Your task to perform on an android device: open app "WhatsApp Messenger" (install if not already installed) Image 0: 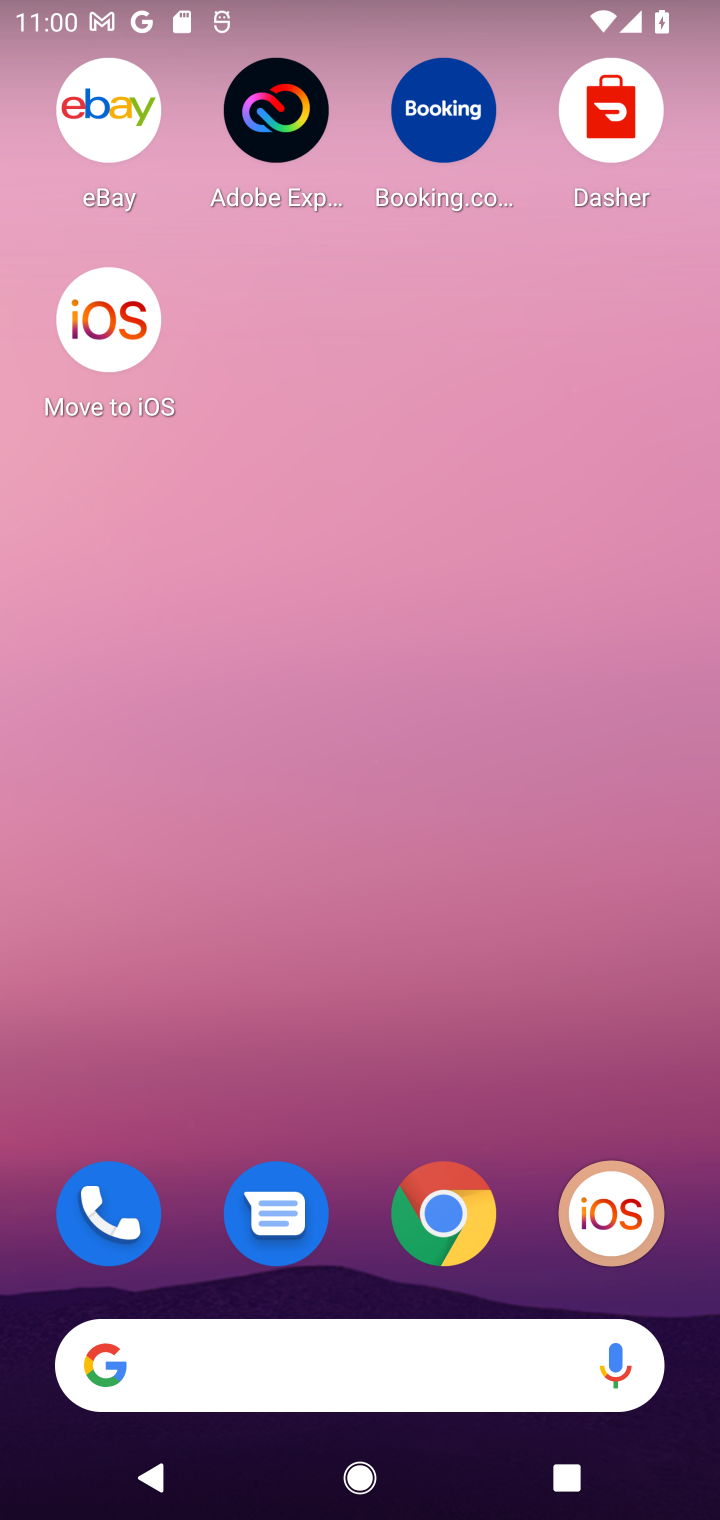
Step 0: press home button
Your task to perform on an android device: open app "WhatsApp Messenger" (install if not already installed) Image 1: 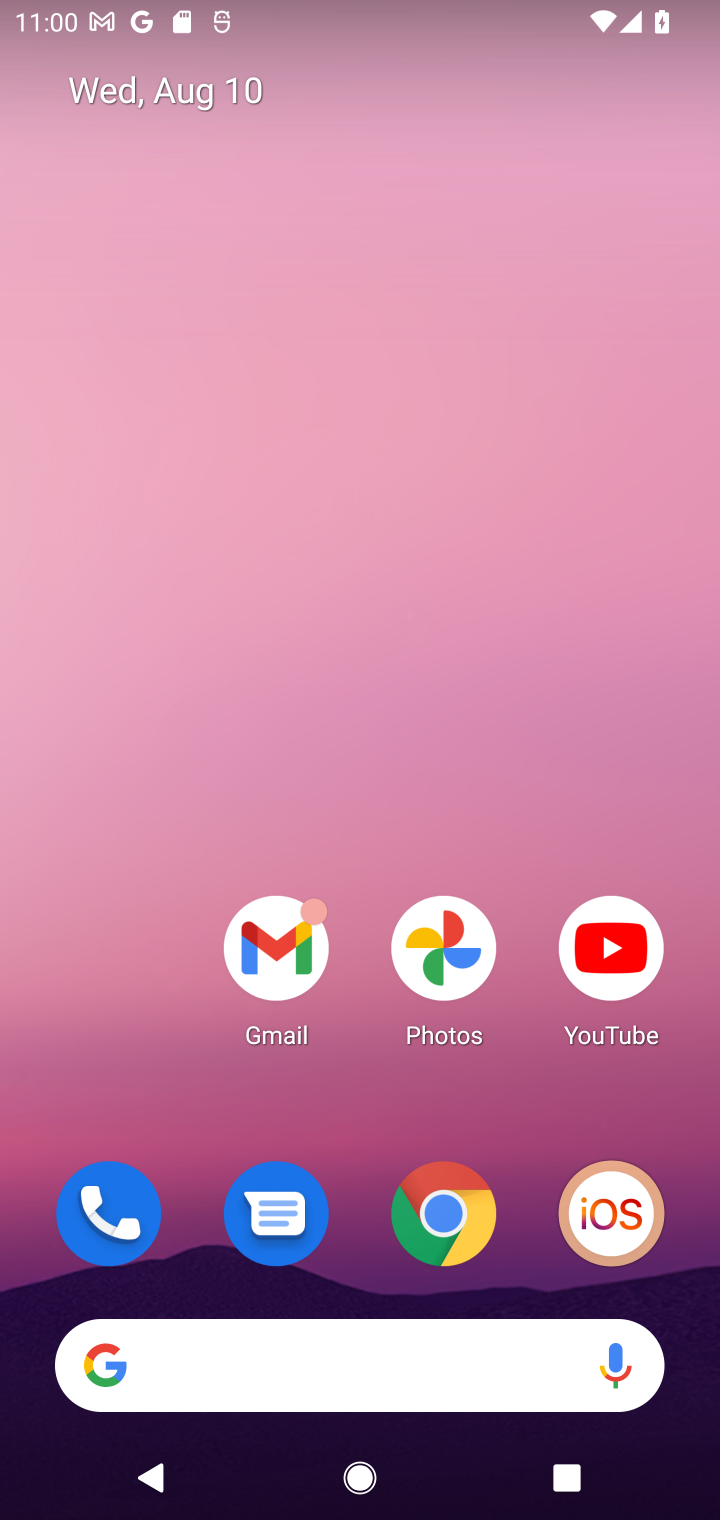
Step 1: drag from (277, 1368) to (421, 328)
Your task to perform on an android device: open app "WhatsApp Messenger" (install if not already installed) Image 2: 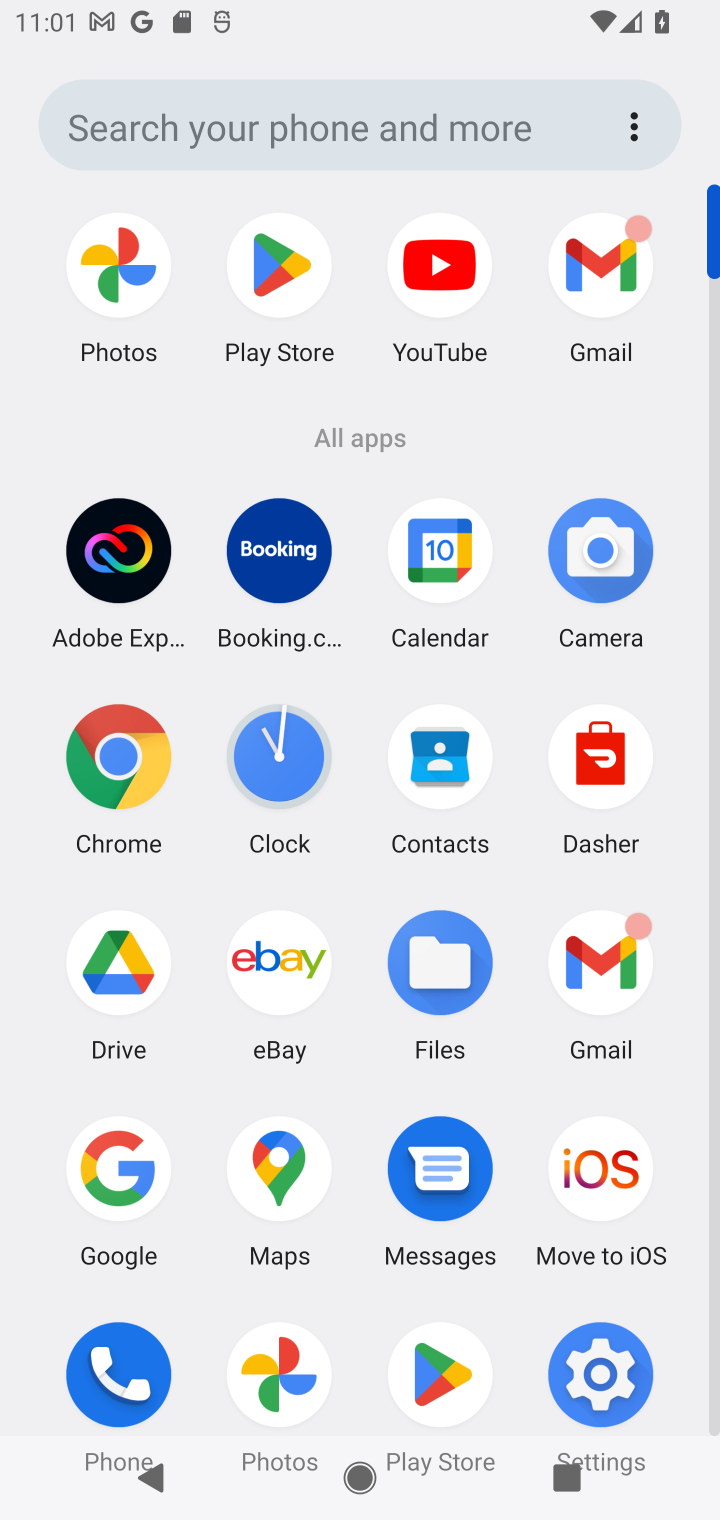
Step 2: click (288, 275)
Your task to perform on an android device: open app "WhatsApp Messenger" (install if not already installed) Image 3: 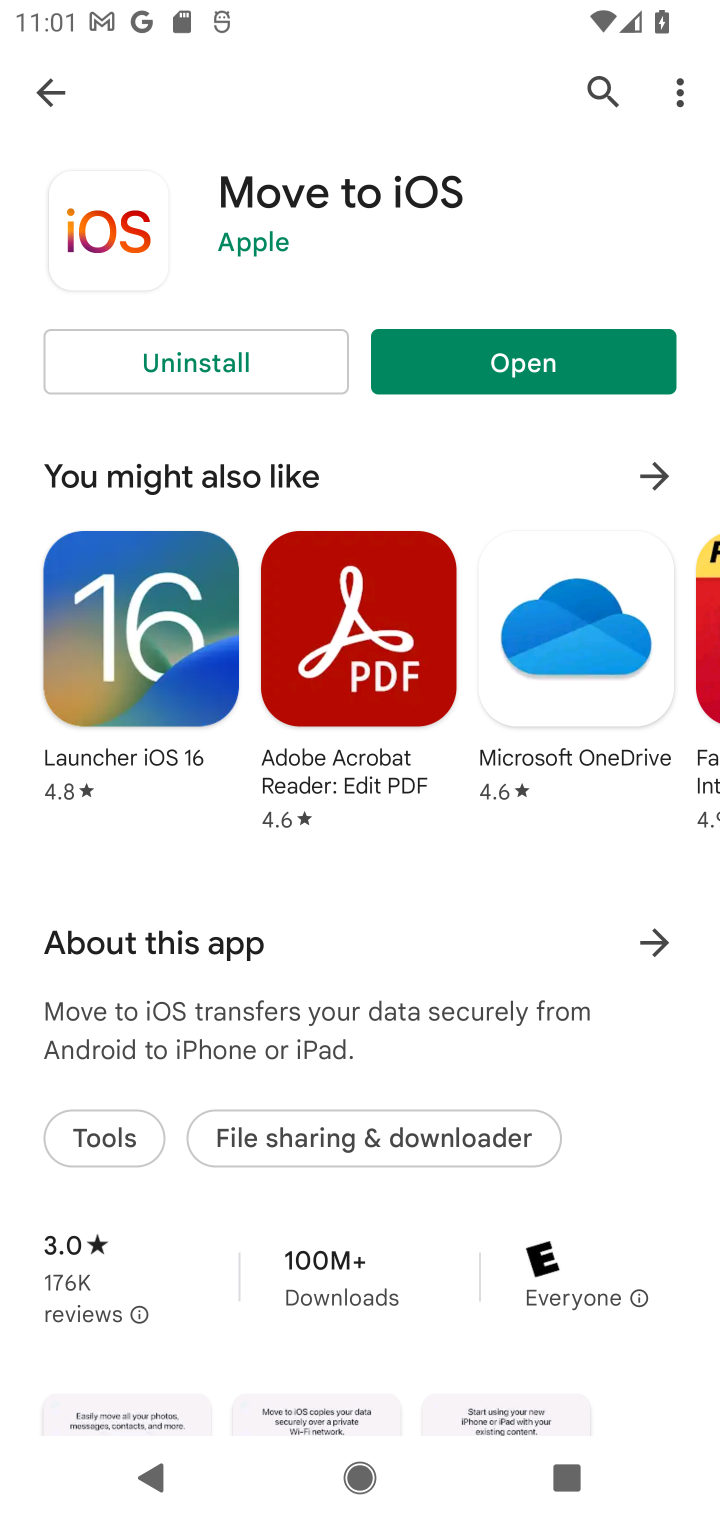
Step 3: press back button
Your task to perform on an android device: open app "WhatsApp Messenger" (install if not already installed) Image 4: 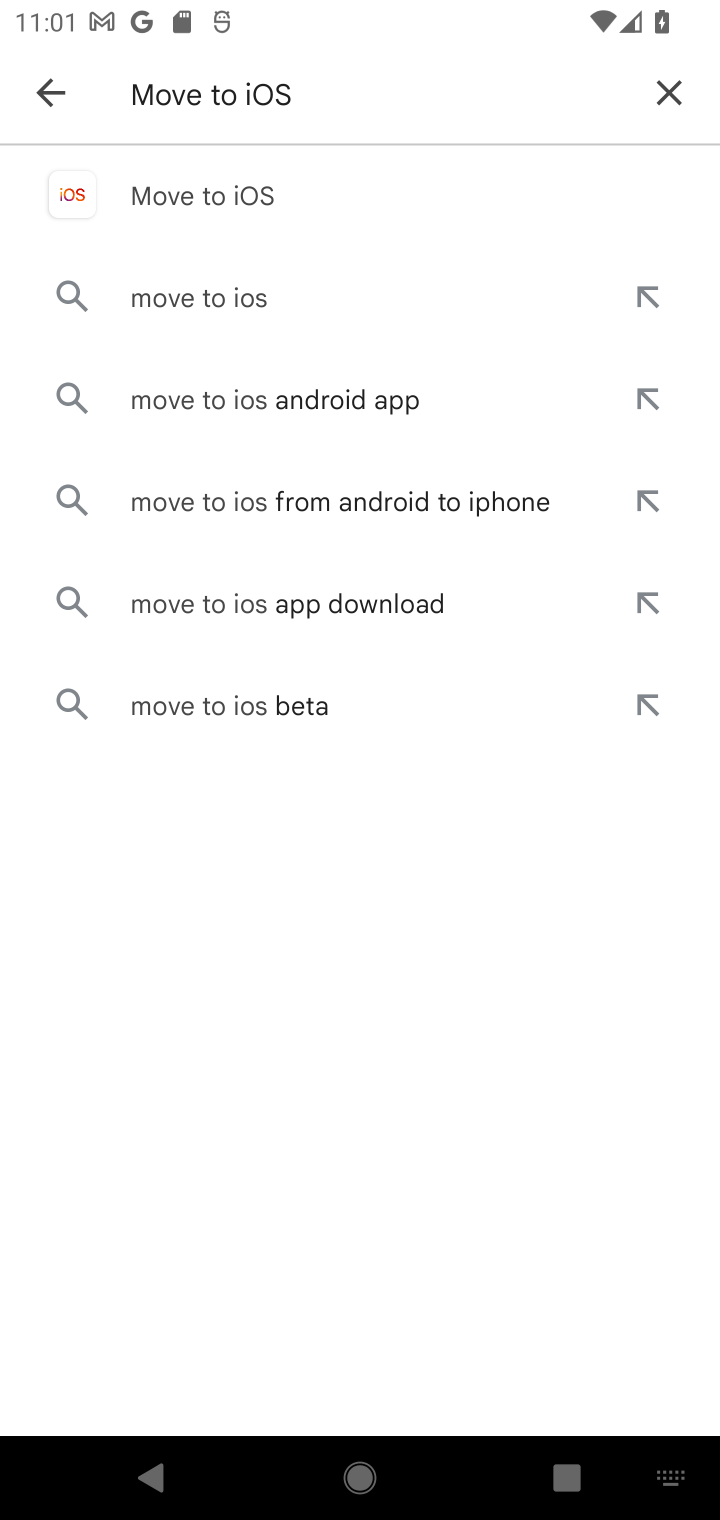
Step 4: press back button
Your task to perform on an android device: open app "WhatsApp Messenger" (install if not already installed) Image 5: 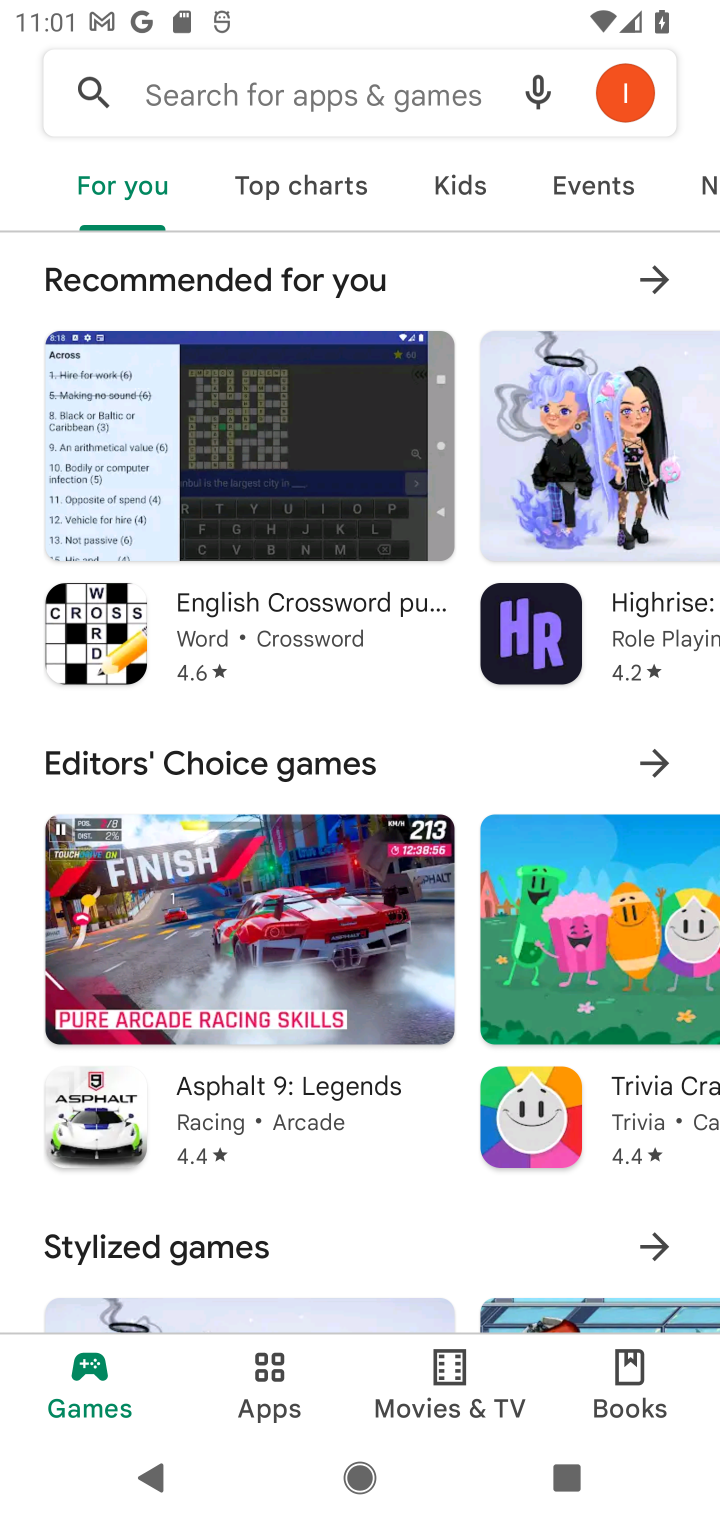
Step 5: click (305, 82)
Your task to perform on an android device: open app "WhatsApp Messenger" (install if not already installed) Image 6: 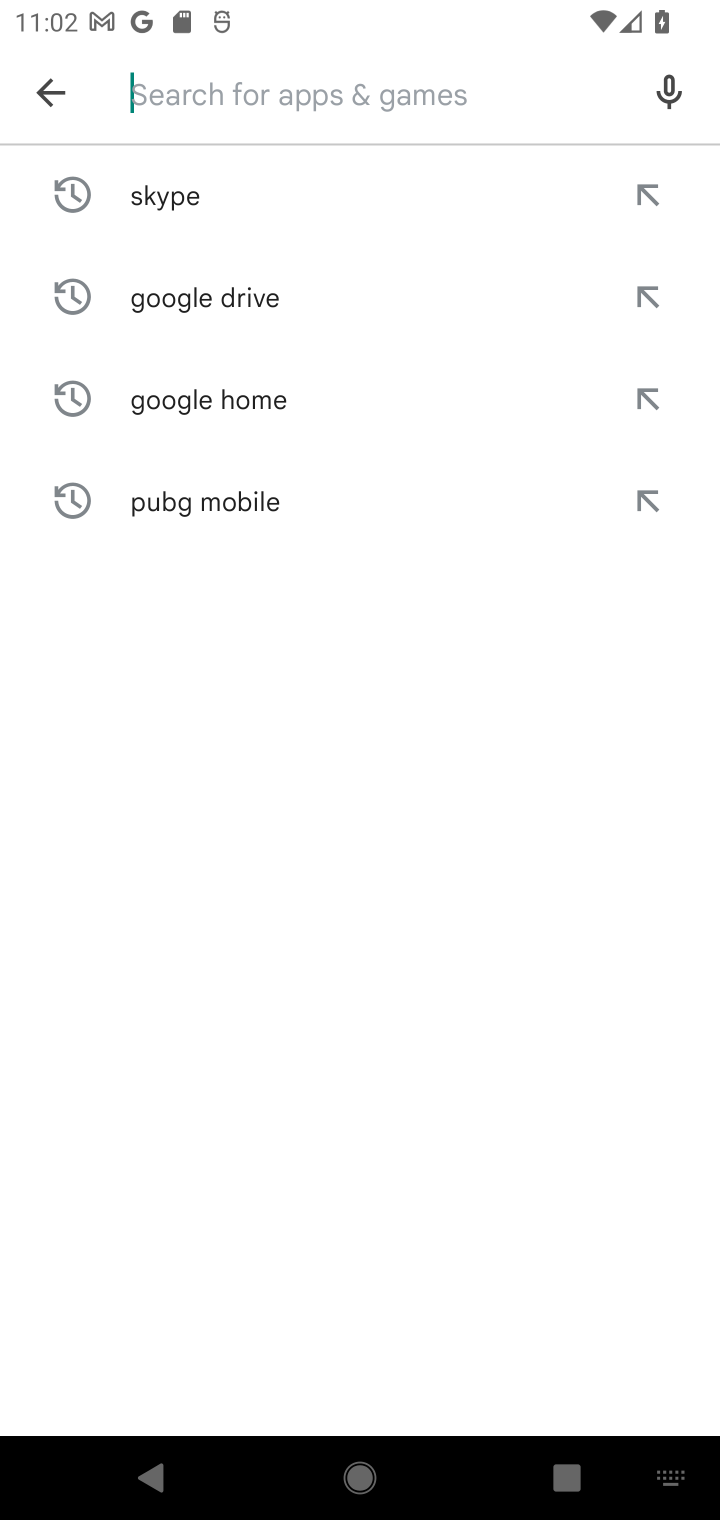
Step 6: type "WhatsApp Messenger"
Your task to perform on an android device: open app "WhatsApp Messenger" (install if not already installed) Image 7: 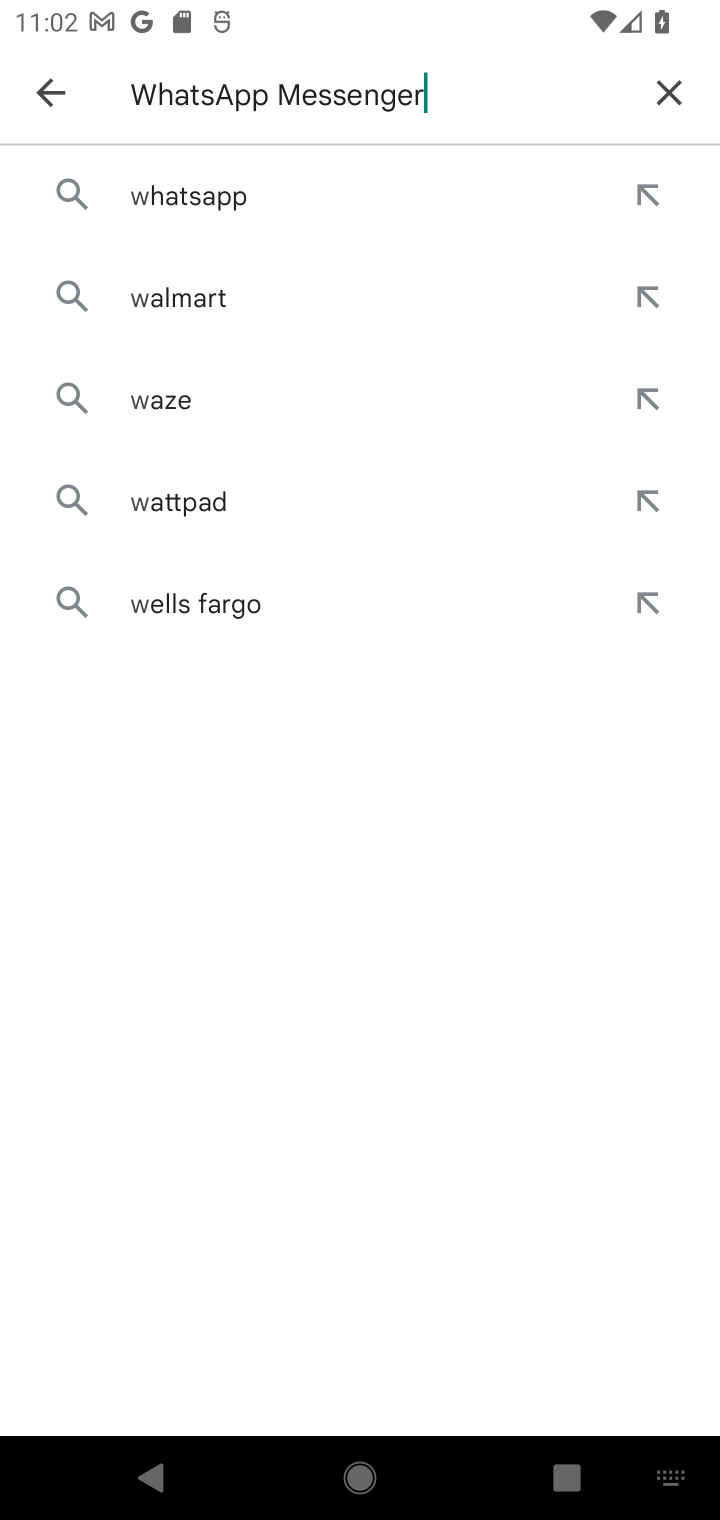
Step 7: type ""
Your task to perform on an android device: open app "WhatsApp Messenger" (install if not already installed) Image 8: 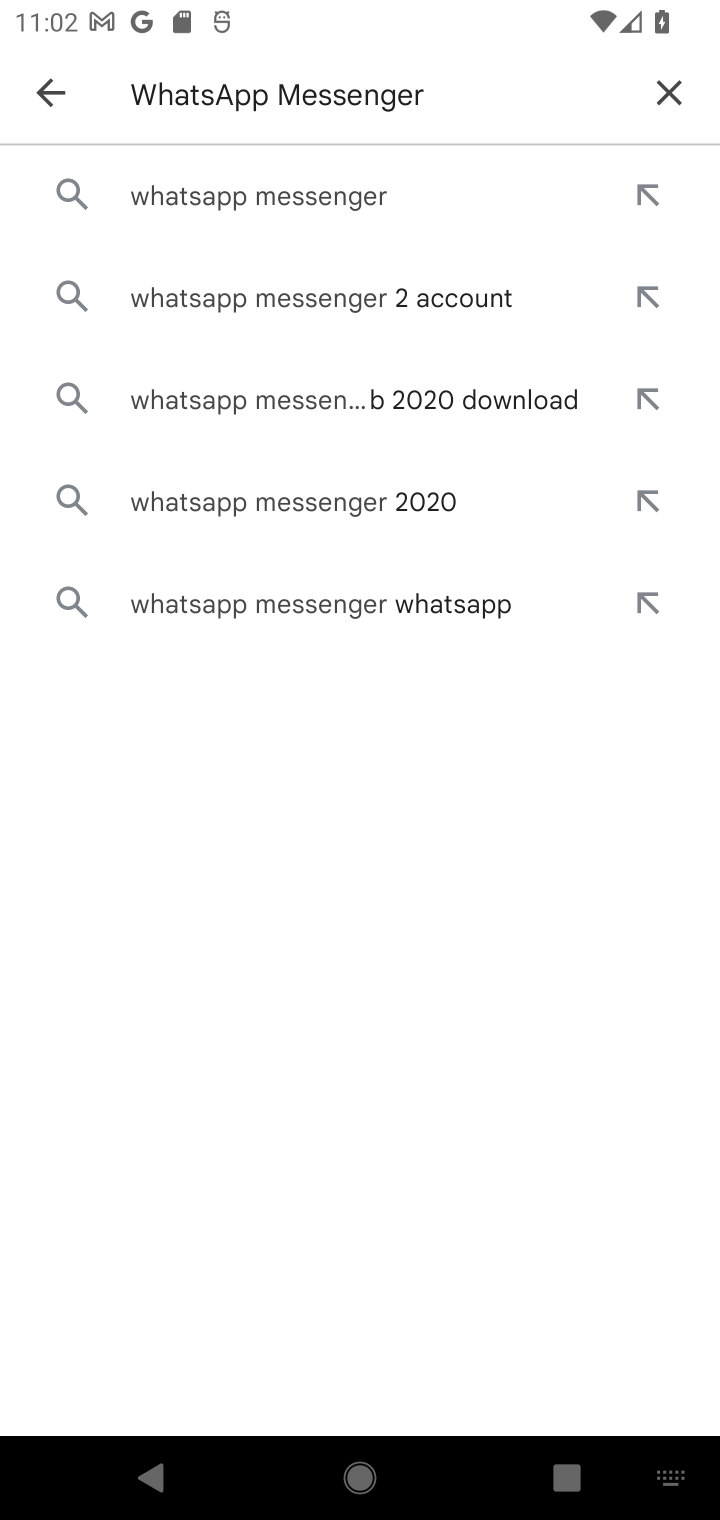
Step 8: click (300, 201)
Your task to perform on an android device: open app "WhatsApp Messenger" (install if not already installed) Image 9: 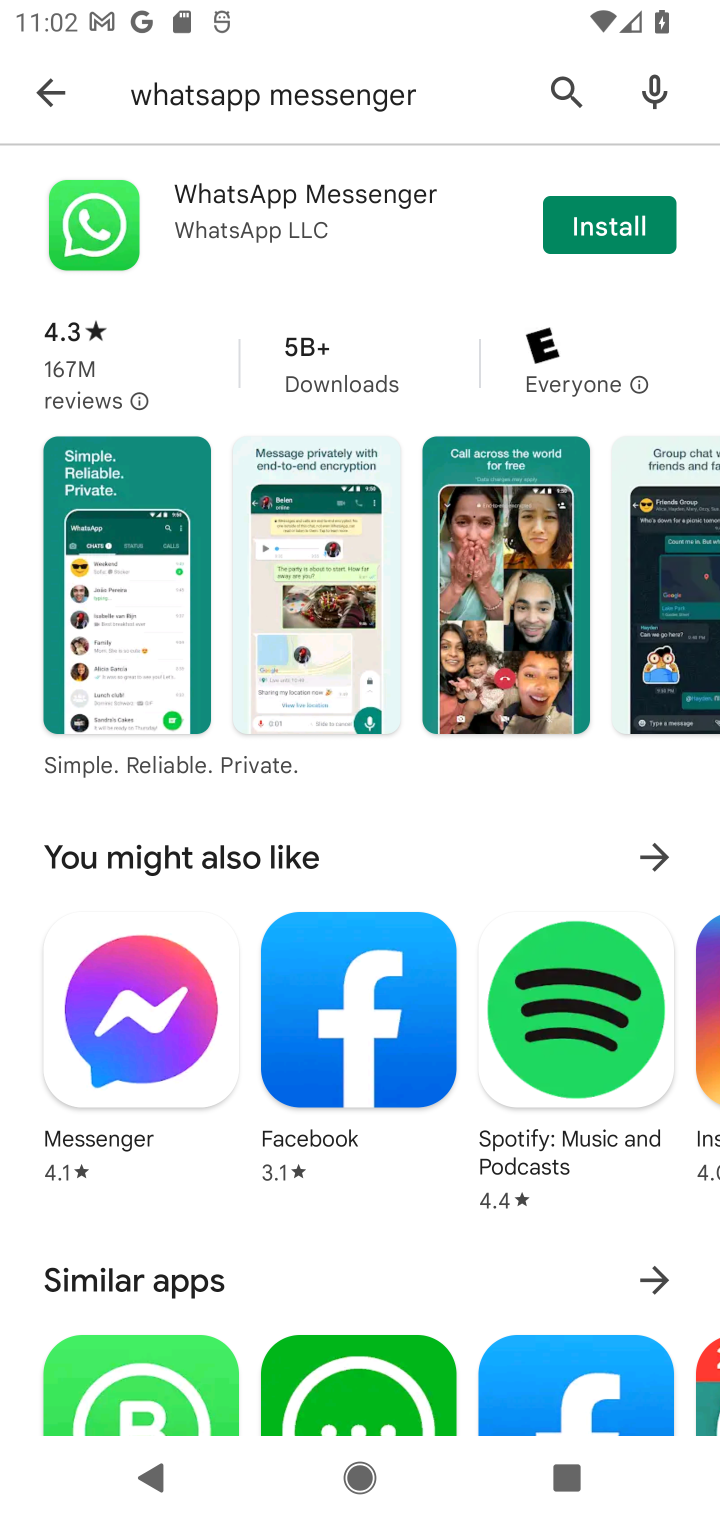
Step 9: click (622, 222)
Your task to perform on an android device: open app "WhatsApp Messenger" (install if not already installed) Image 10: 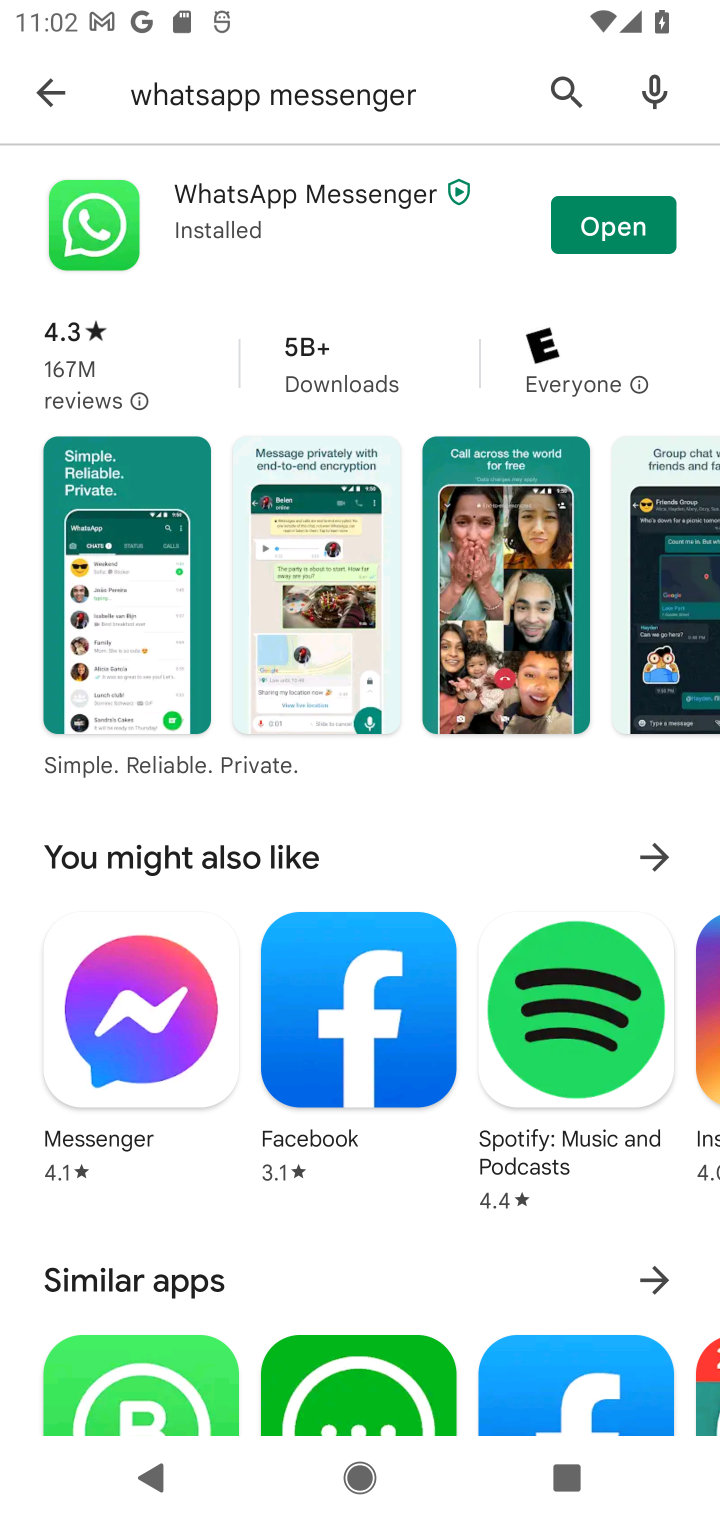
Step 10: click (611, 222)
Your task to perform on an android device: open app "WhatsApp Messenger" (install if not already installed) Image 11: 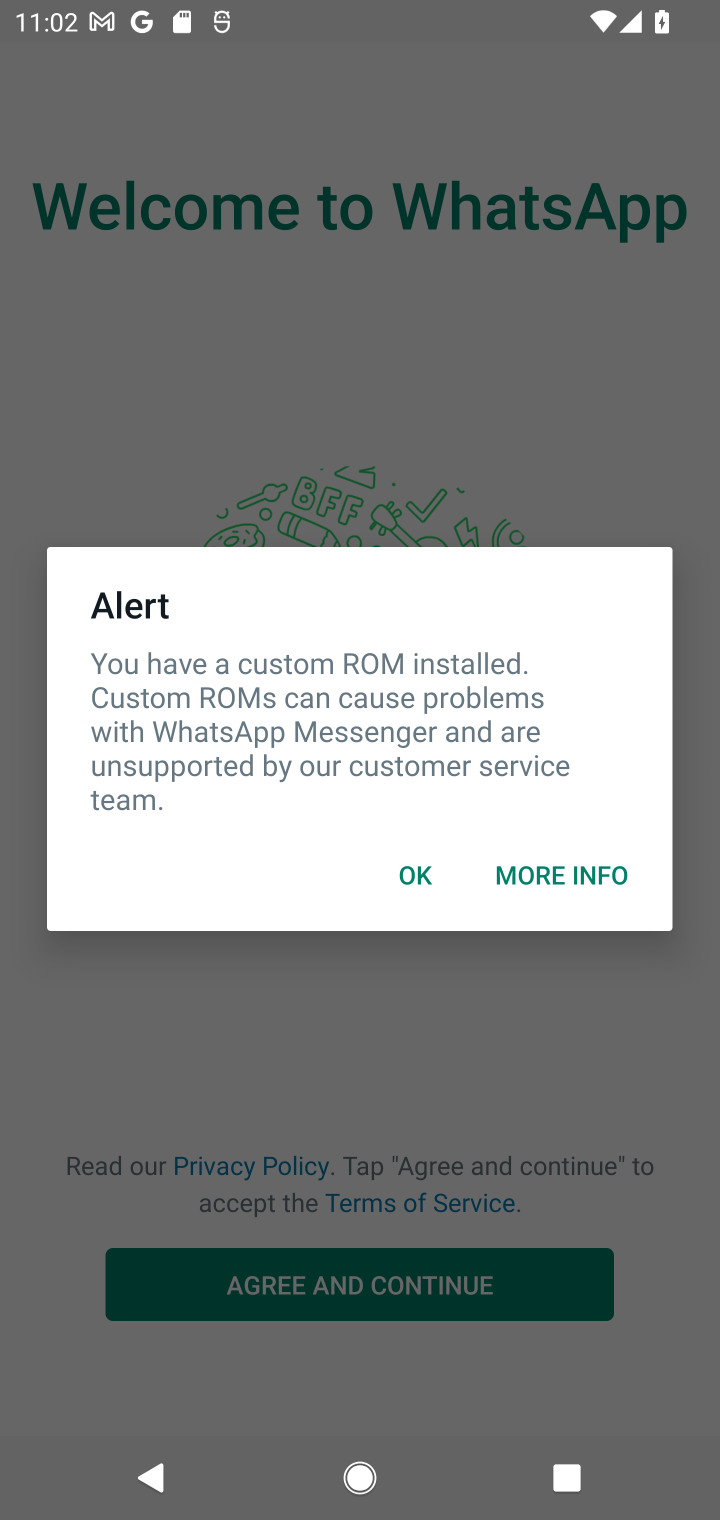
Step 11: click (428, 861)
Your task to perform on an android device: open app "WhatsApp Messenger" (install if not already installed) Image 12: 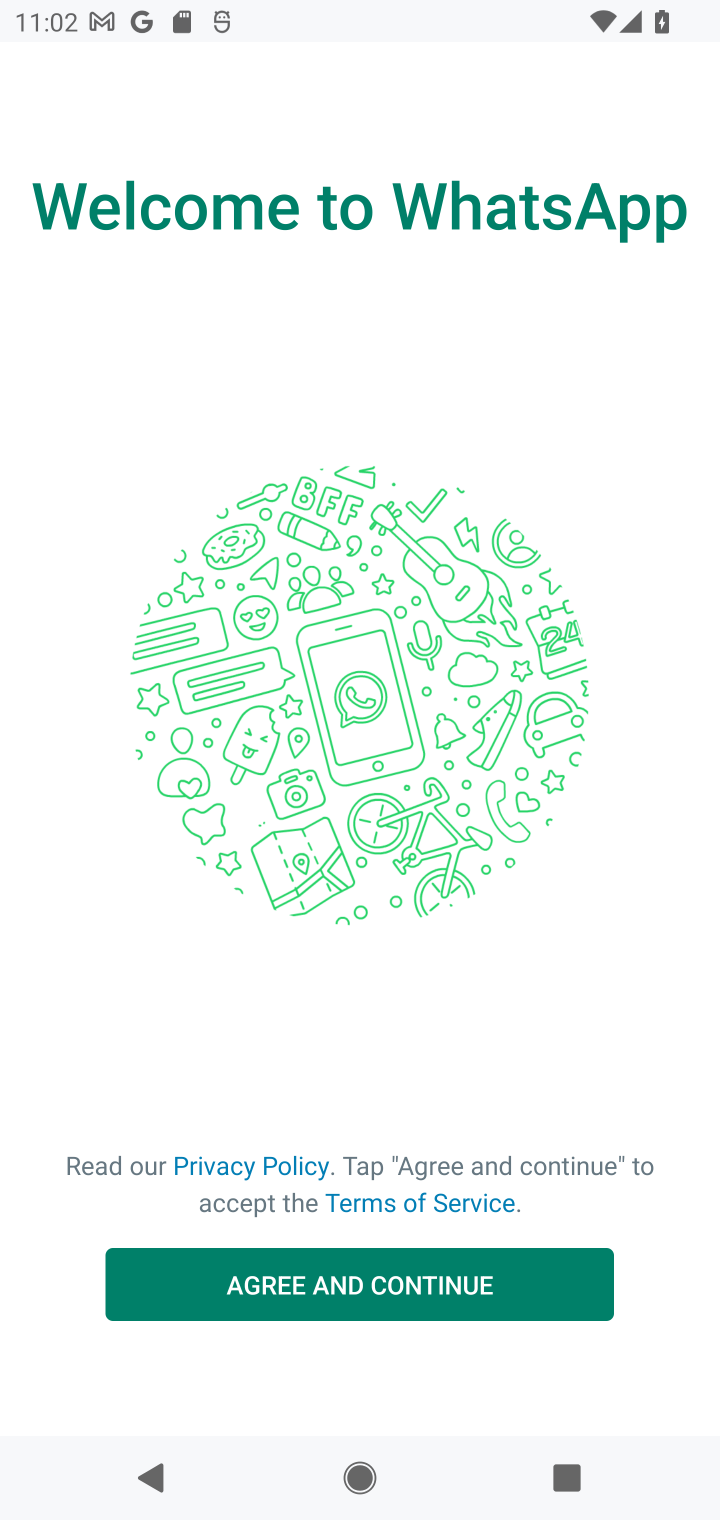
Step 12: task complete